Your task to perform on an android device: Check the news Image 0: 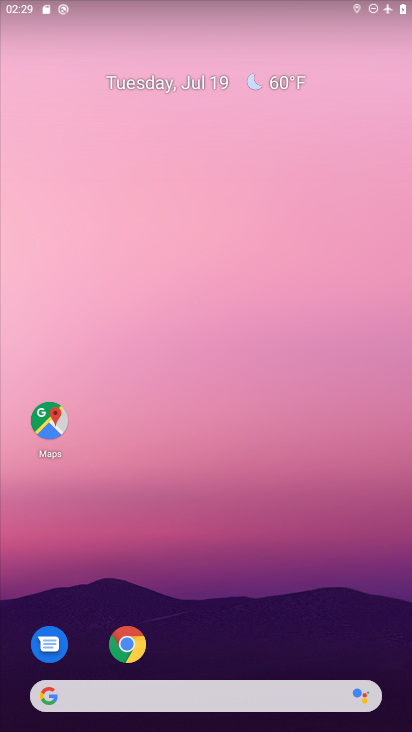
Step 0: click (254, 687)
Your task to perform on an android device: Check the news Image 1: 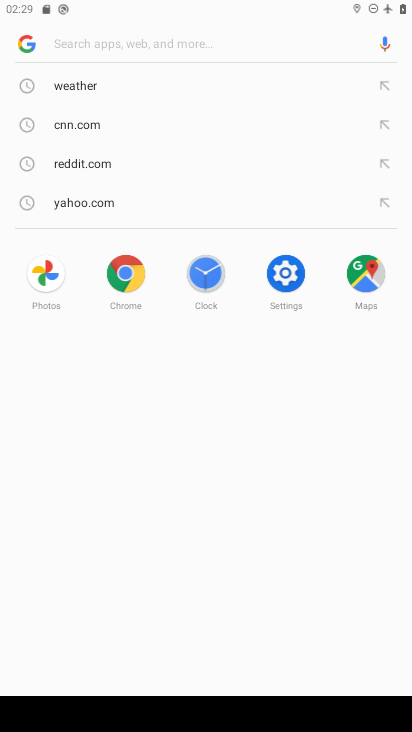
Step 1: type "news"
Your task to perform on an android device: Check the news Image 2: 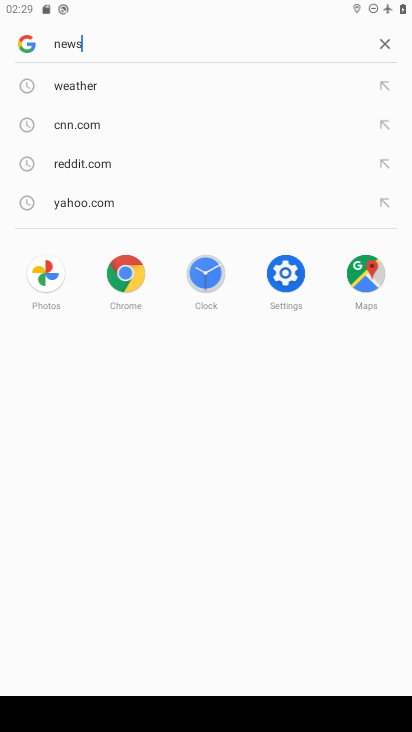
Step 2: type ""
Your task to perform on an android device: Check the news Image 3: 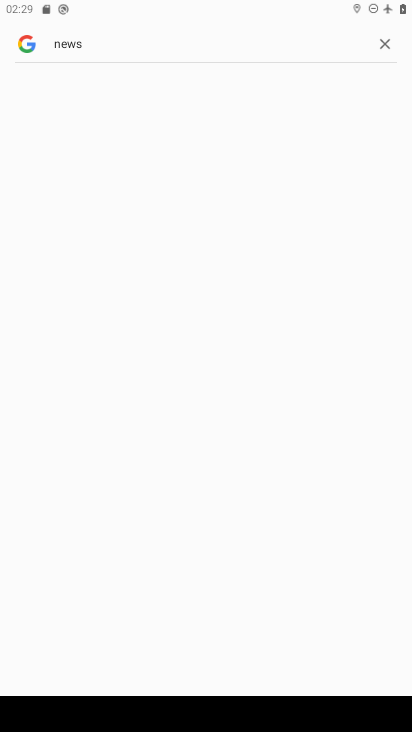
Step 3: task complete